Your task to perform on an android device: turn off picture-in-picture Image 0: 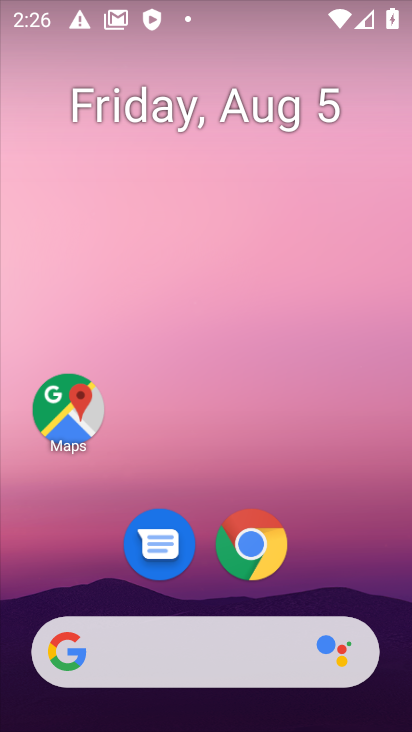
Step 0: drag from (228, 600) to (243, 151)
Your task to perform on an android device: turn off picture-in-picture Image 1: 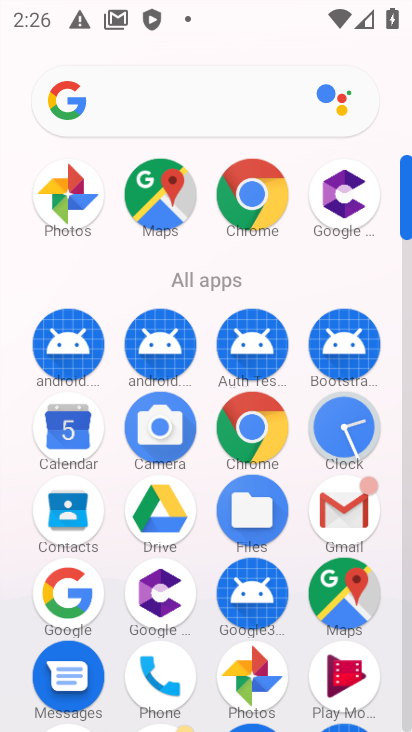
Step 1: drag from (214, 606) to (254, 184)
Your task to perform on an android device: turn off picture-in-picture Image 2: 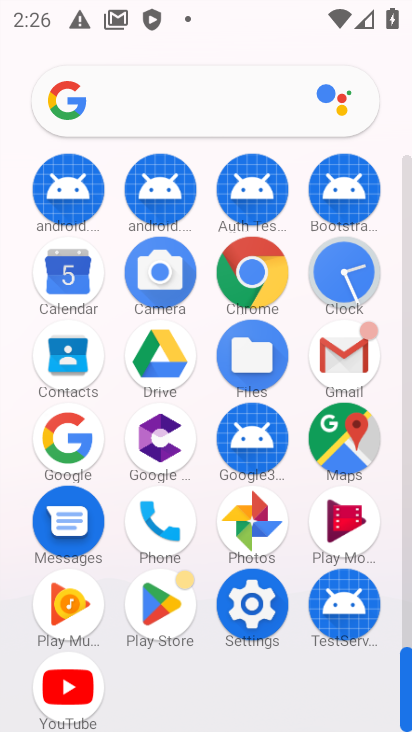
Step 2: click (253, 595)
Your task to perform on an android device: turn off picture-in-picture Image 3: 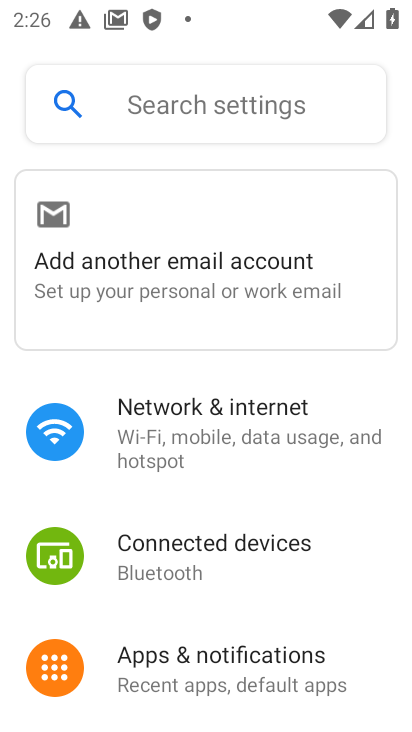
Step 3: drag from (169, 578) to (200, 176)
Your task to perform on an android device: turn off picture-in-picture Image 4: 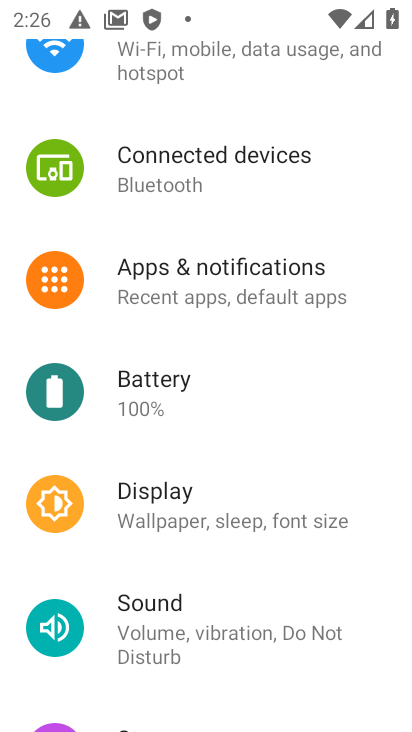
Step 4: click (226, 264)
Your task to perform on an android device: turn off picture-in-picture Image 5: 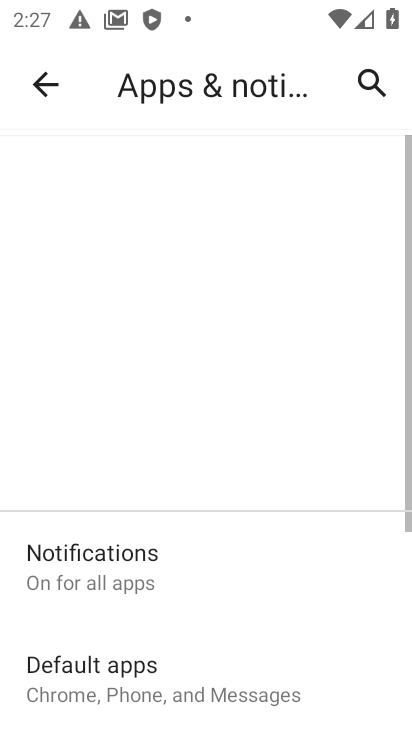
Step 5: drag from (201, 636) to (209, 247)
Your task to perform on an android device: turn off picture-in-picture Image 6: 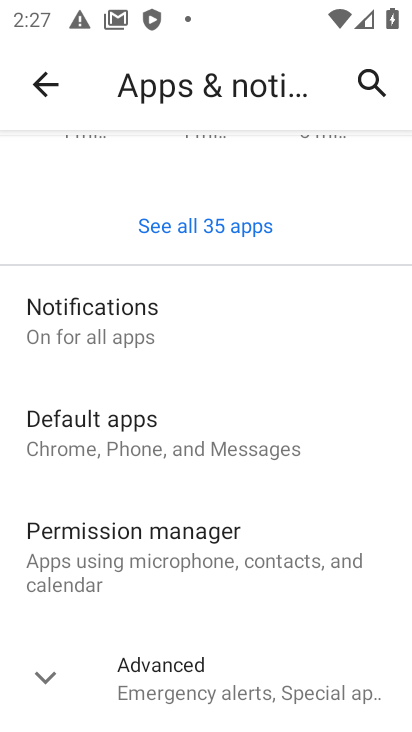
Step 6: click (182, 640)
Your task to perform on an android device: turn off picture-in-picture Image 7: 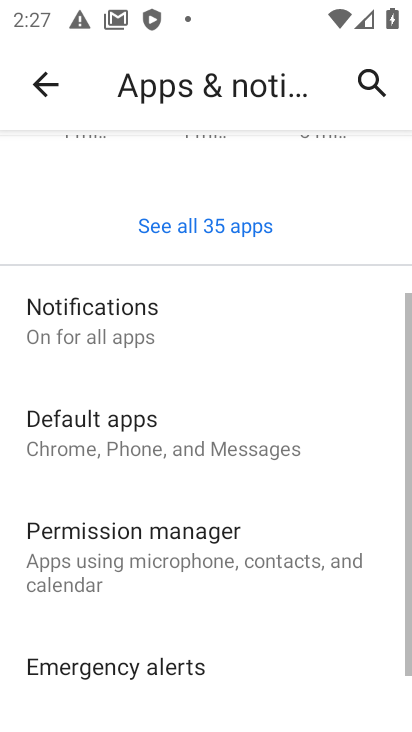
Step 7: drag from (184, 638) to (188, 289)
Your task to perform on an android device: turn off picture-in-picture Image 8: 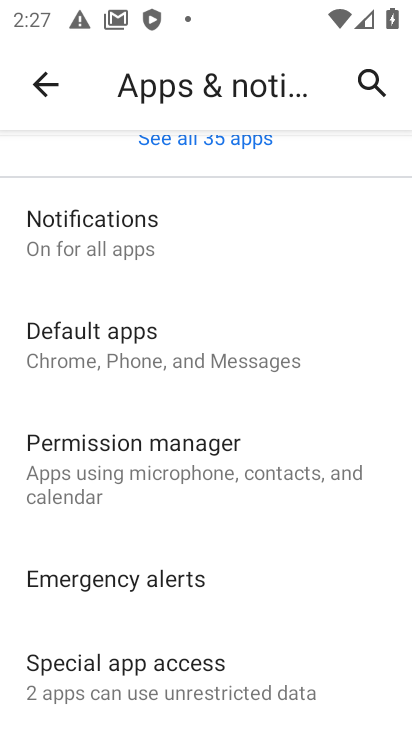
Step 8: click (184, 701)
Your task to perform on an android device: turn off picture-in-picture Image 9: 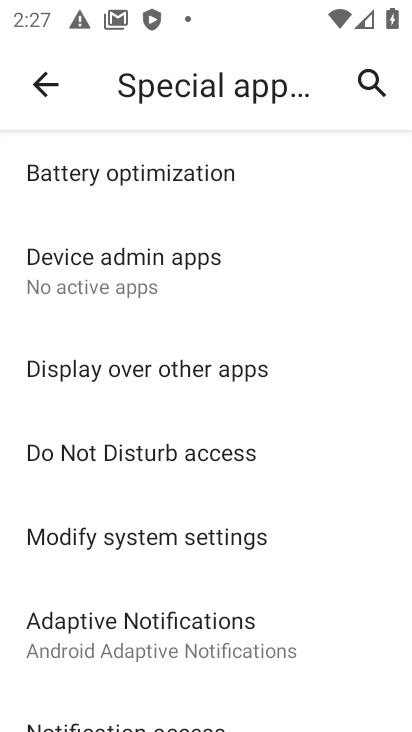
Step 9: drag from (187, 690) to (180, 346)
Your task to perform on an android device: turn off picture-in-picture Image 10: 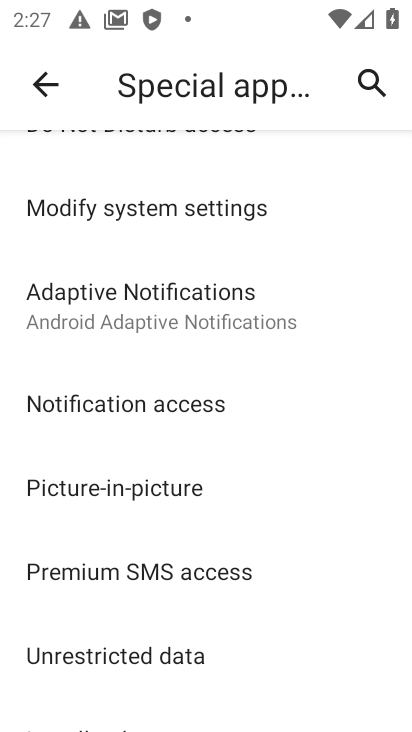
Step 10: click (163, 511)
Your task to perform on an android device: turn off picture-in-picture Image 11: 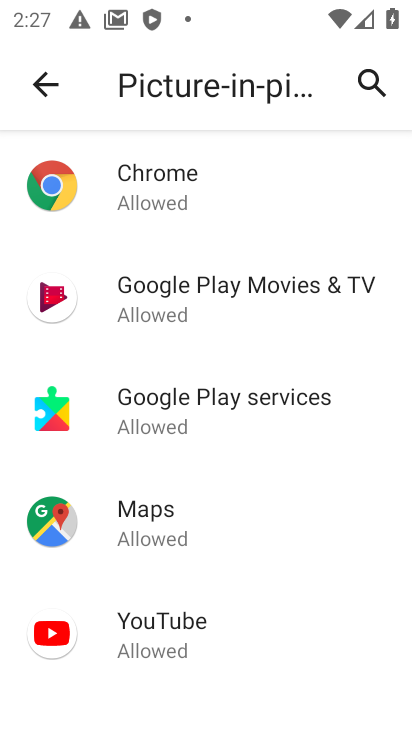
Step 11: task complete